Your task to perform on an android device: turn off smart reply in the gmail app Image 0: 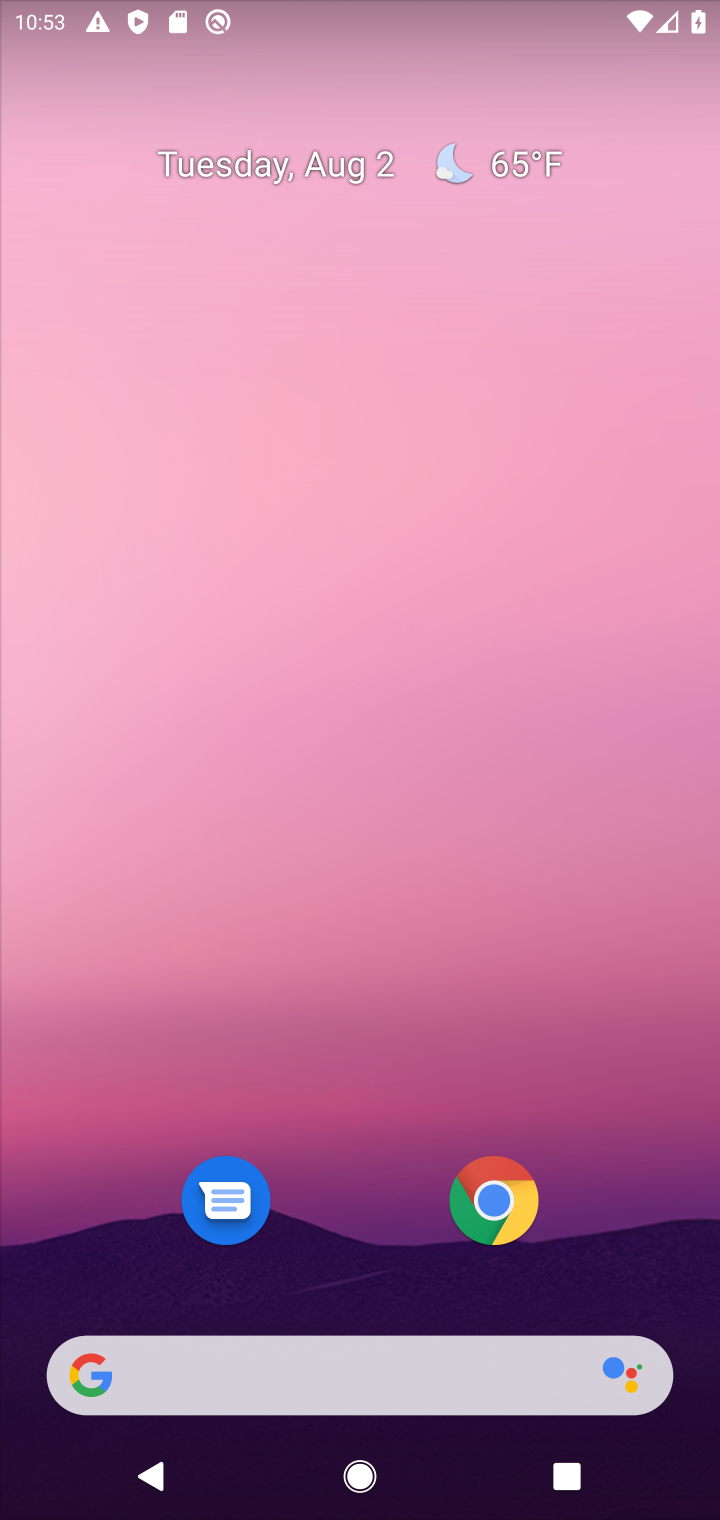
Step 0: drag from (655, 1089) to (566, 365)
Your task to perform on an android device: turn off smart reply in the gmail app Image 1: 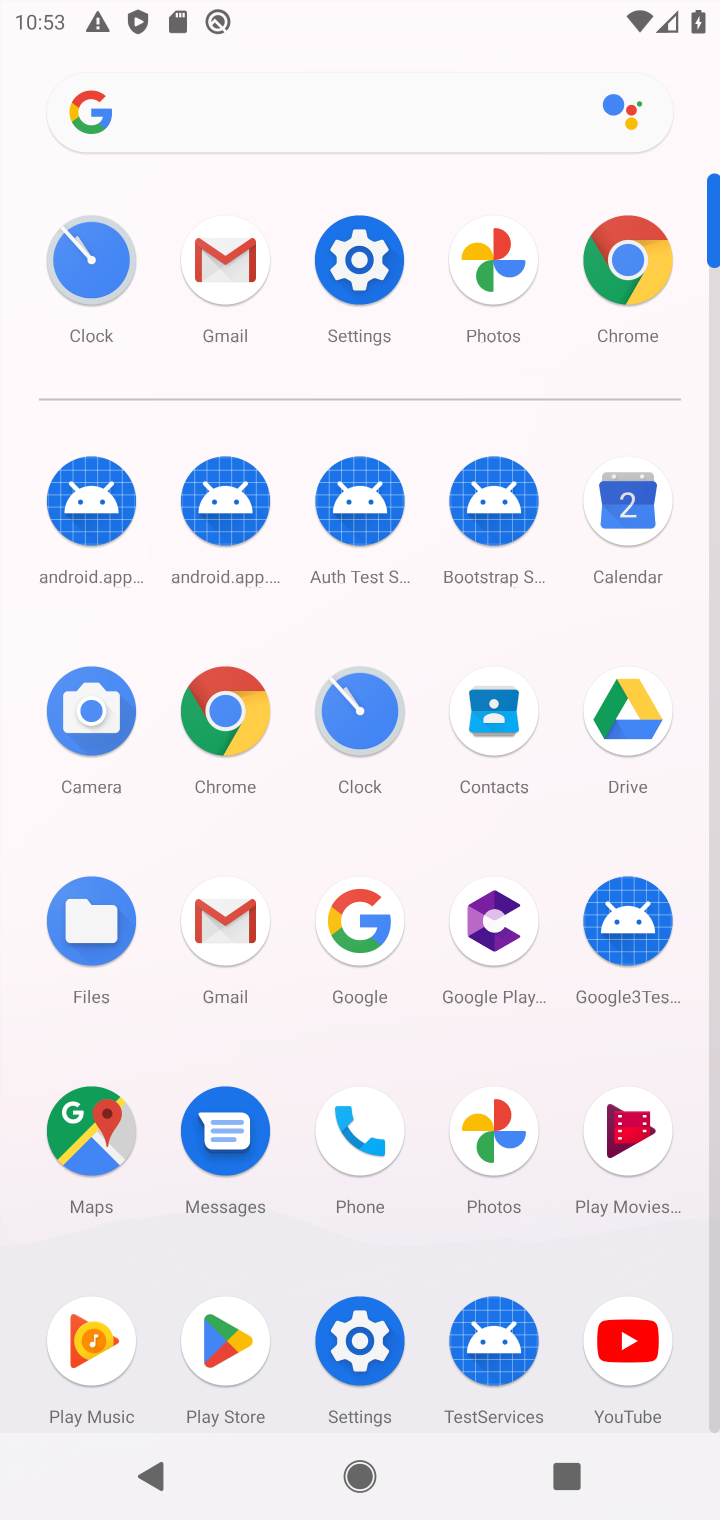
Step 1: click (225, 920)
Your task to perform on an android device: turn off smart reply in the gmail app Image 2: 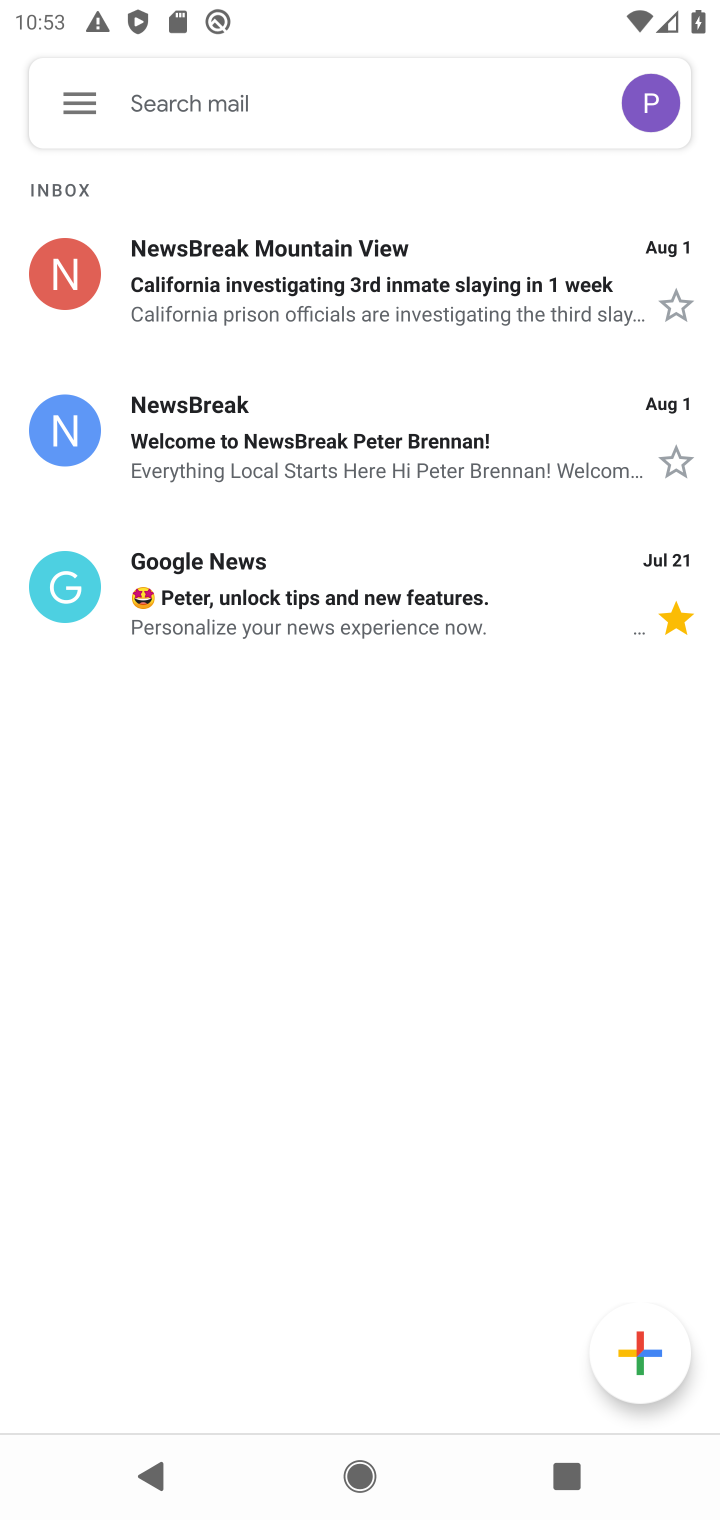
Step 2: click (80, 112)
Your task to perform on an android device: turn off smart reply in the gmail app Image 3: 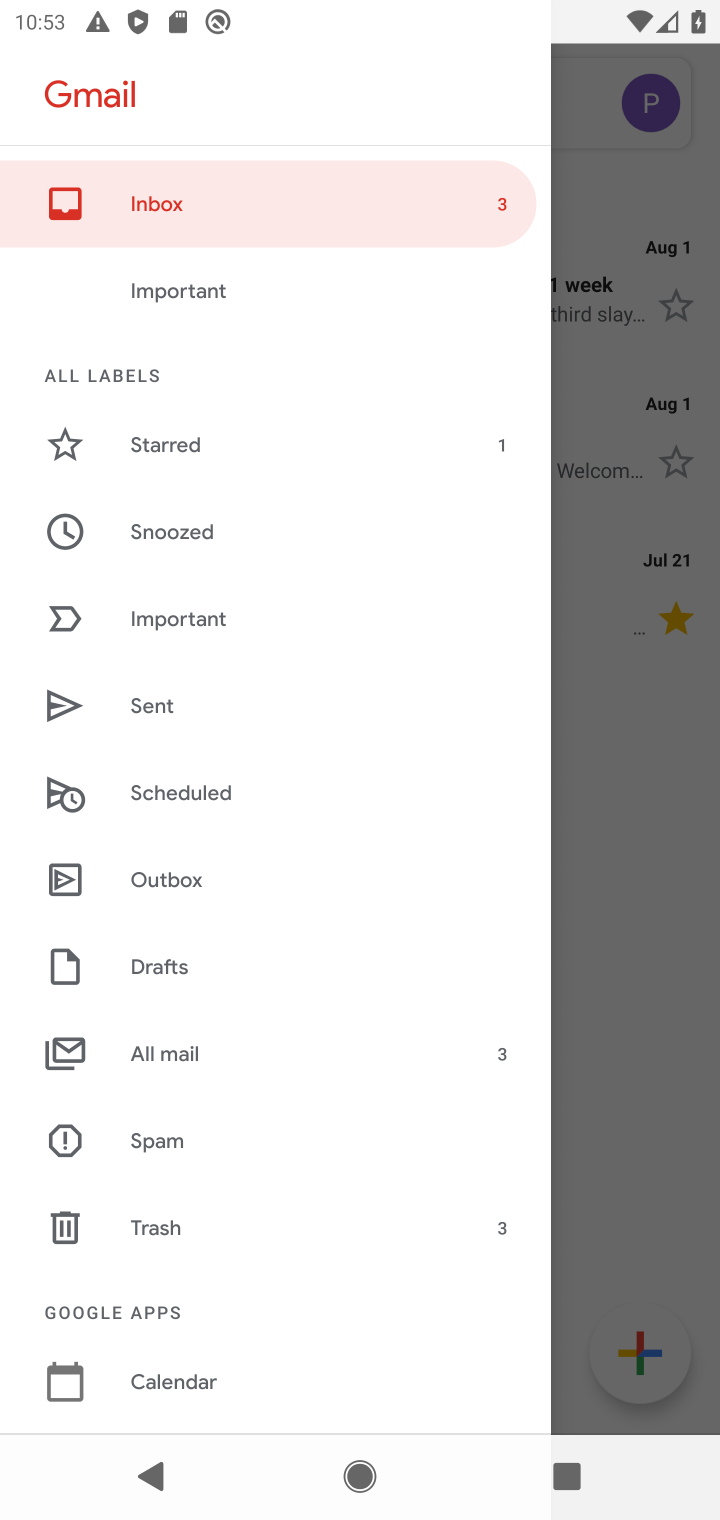
Step 3: drag from (305, 1301) to (340, 582)
Your task to perform on an android device: turn off smart reply in the gmail app Image 4: 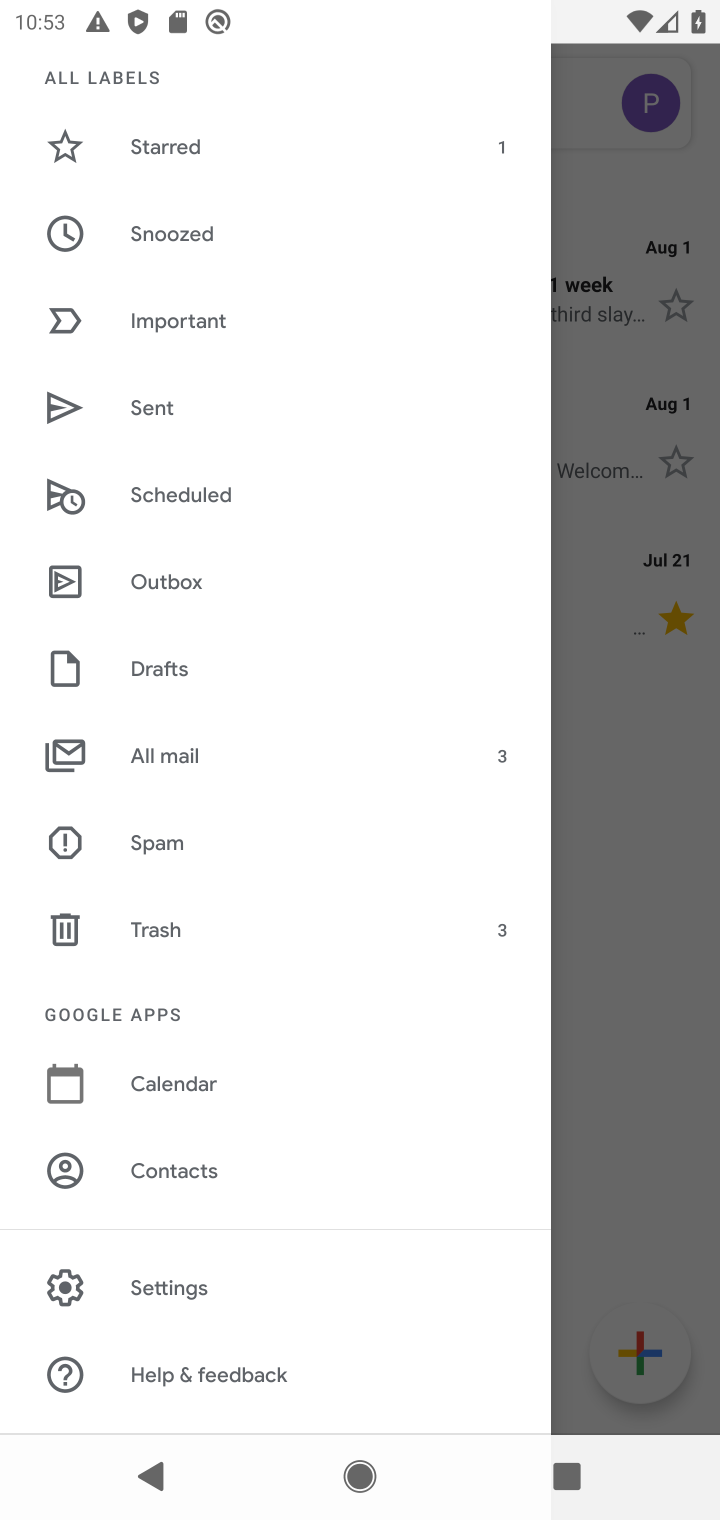
Step 4: click (174, 1286)
Your task to perform on an android device: turn off smart reply in the gmail app Image 5: 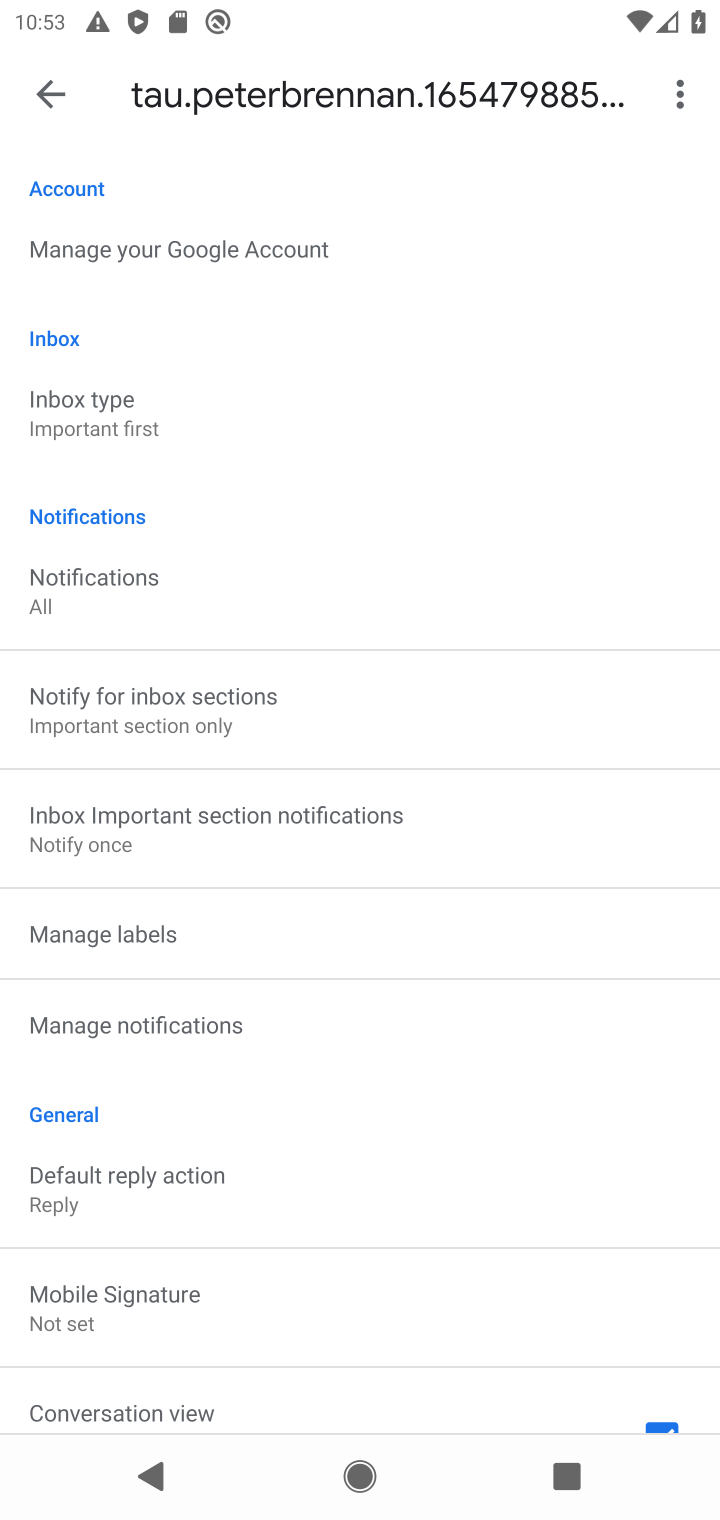
Step 5: drag from (502, 1320) to (531, 624)
Your task to perform on an android device: turn off smart reply in the gmail app Image 6: 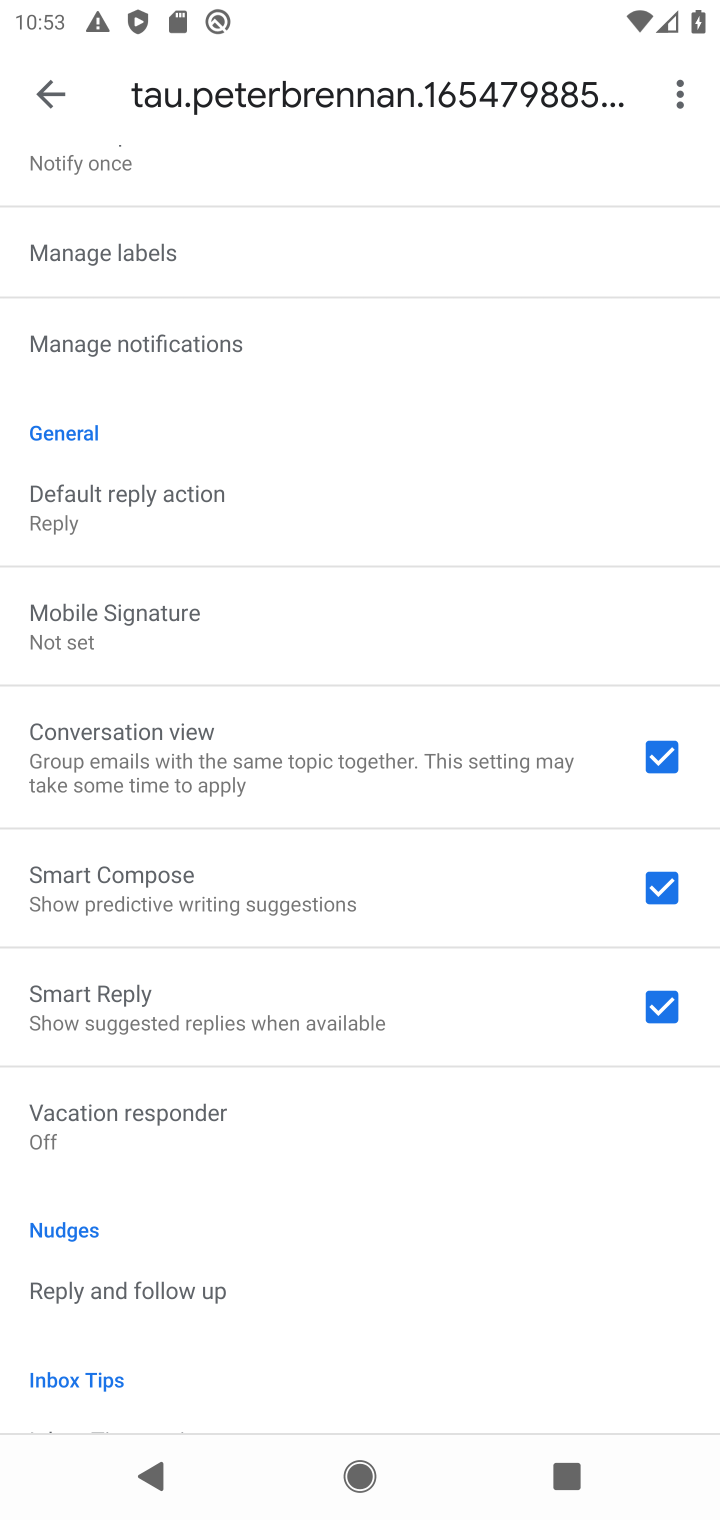
Step 6: click (650, 999)
Your task to perform on an android device: turn off smart reply in the gmail app Image 7: 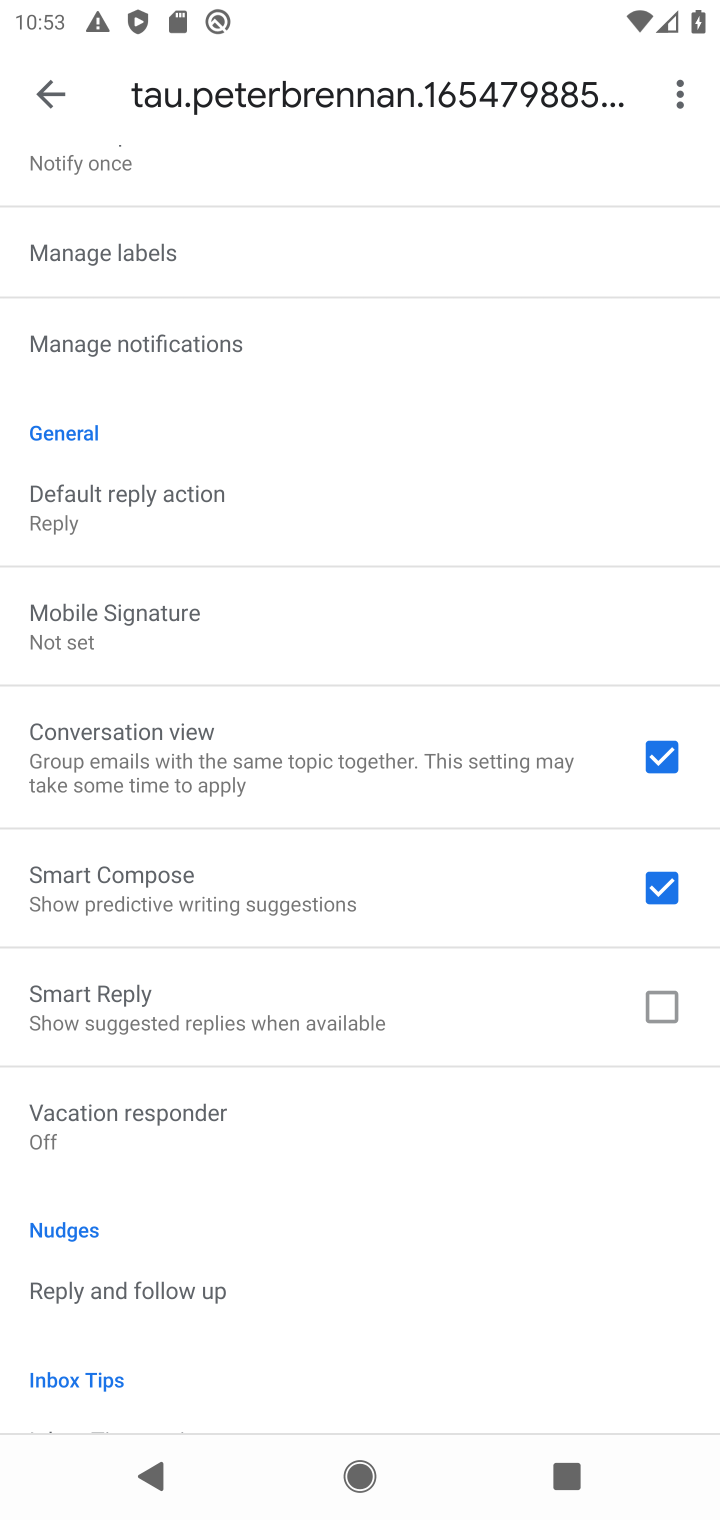
Step 7: task complete